Your task to perform on an android device: Check the news Image 0: 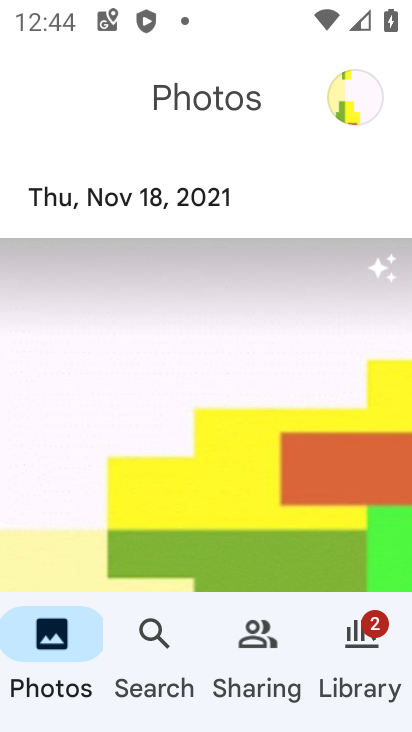
Step 0: press home button
Your task to perform on an android device: Check the news Image 1: 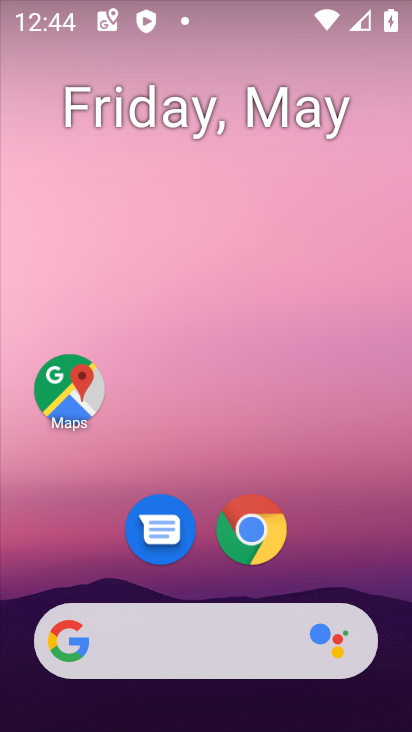
Step 1: drag from (352, 548) to (349, 105)
Your task to perform on an android device: Check the news Image 2: 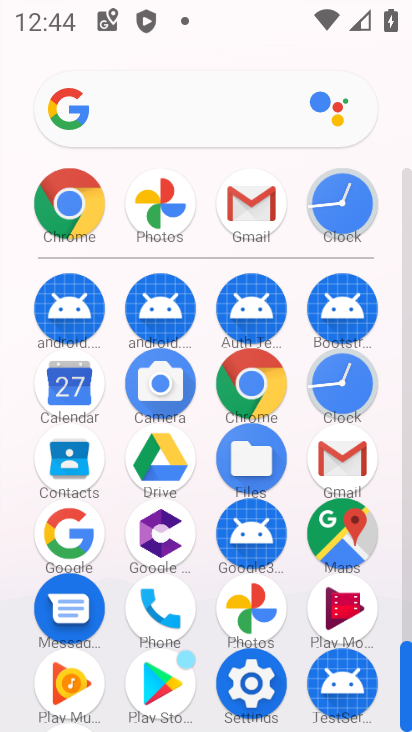
Step 2: click (213, 102)
Your task to perform on an android device: Check the news Image 3: 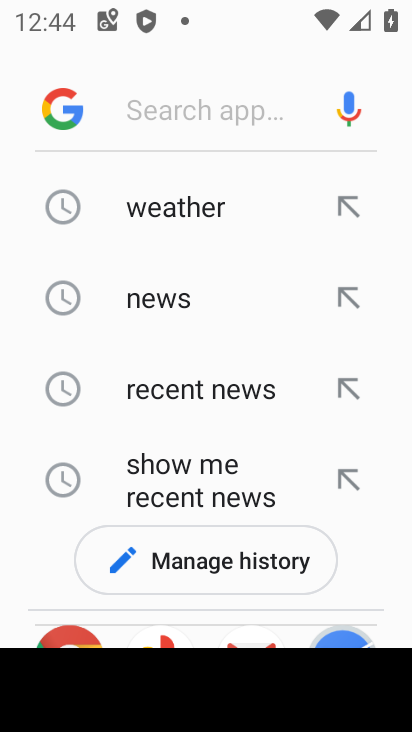
Step 3: click (178, 298)
Your task to perform on an android device: Check the news Image 4: 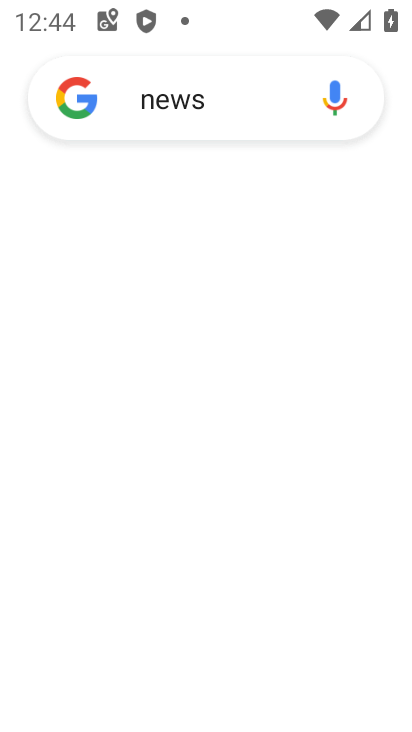
Step 4: task complete